Your task to perform on an android device: empty trash in google photos Image 0: 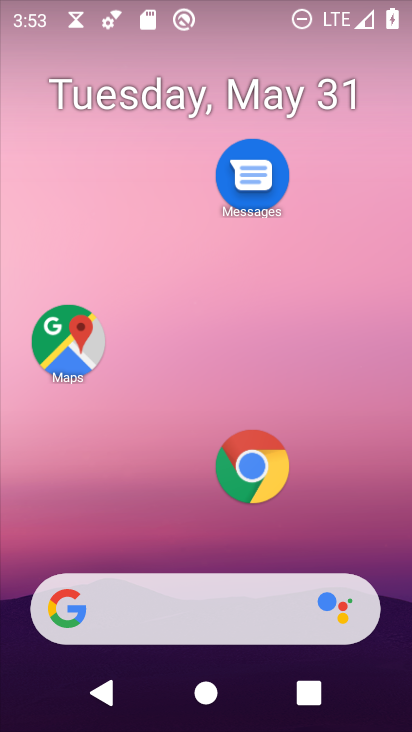
Step 0: drag from (148, 556) to (206, 76)
Your task to perform on an android device: empty trash in google photos Image 1: 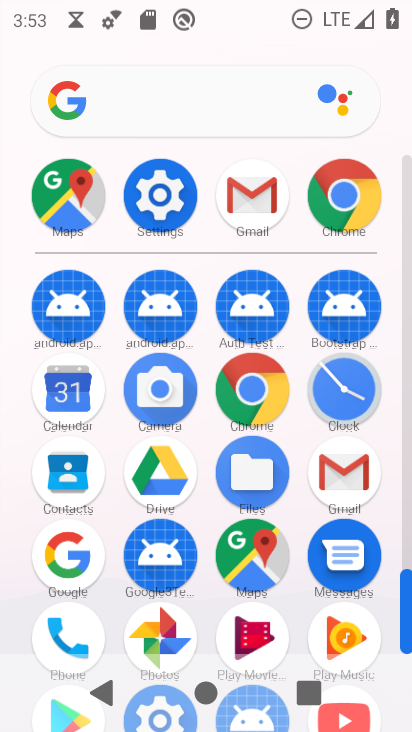
Step 1: click (167, 637)
Your task to perform on an android device: empty trash in google photos Image 2: 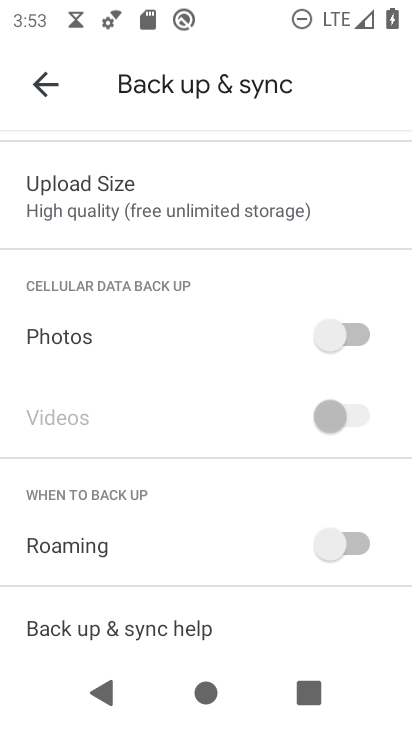
Step 2: click (42, 82)
Your task to perform on an android device: empty trash in google photos Image 3: 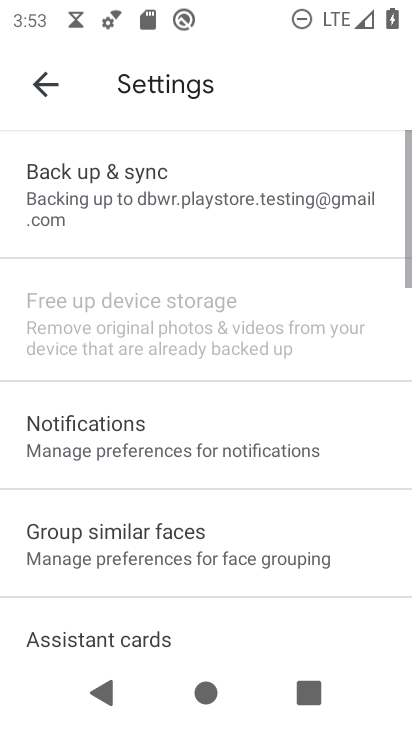
Step 3: click (33, 84)
Your task to perform on an android device: empty trash in google photos Image 4: 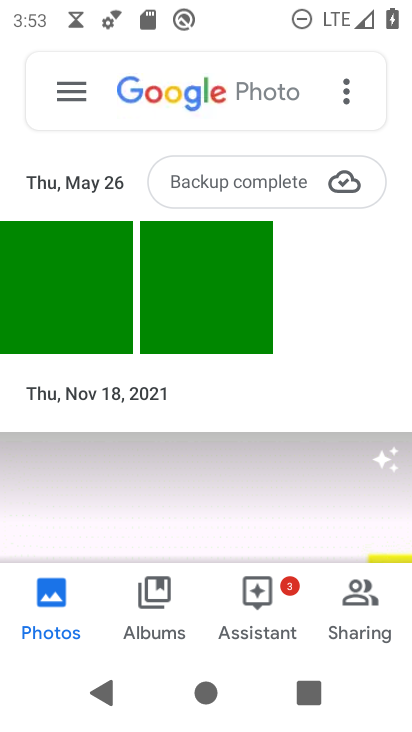
Step 4: click (51, 88)
Your task to perform on an android device: empty trash in google photos Image 5: 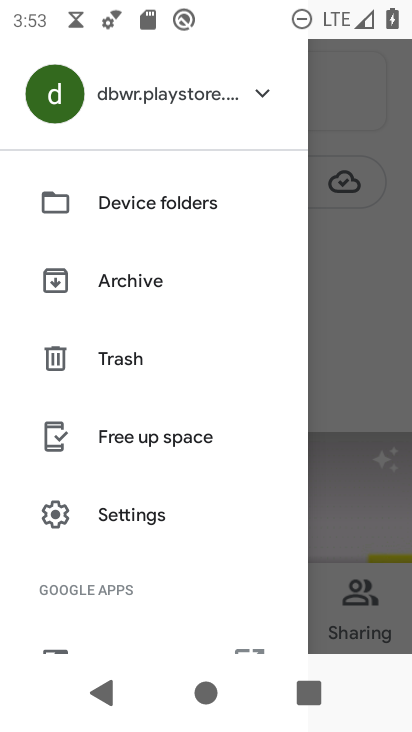
Step 5: click (111, 368)
Your task to perform on an android device: empty trash in google photos Image 6: 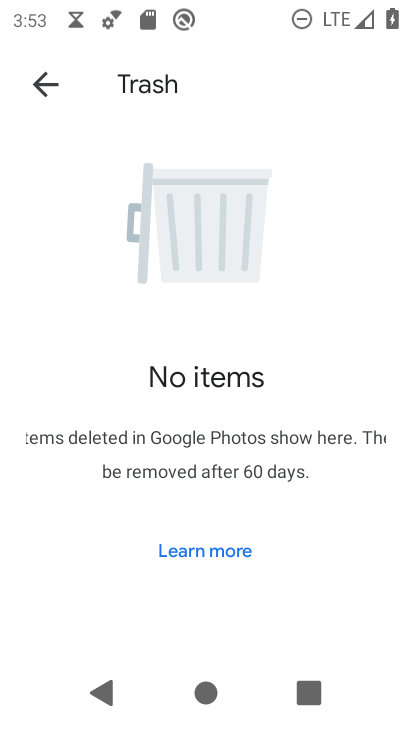
Step 6: task complete